Your task to perform on an android device: Open Youtube and go to "Your channel" Image 0: 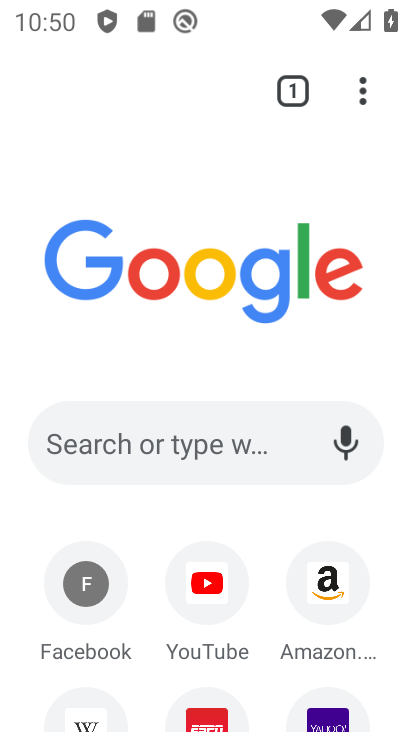
Step 0: press back button
Your task to perform on an android device: Open Youtube and go to "Your channel" Image 1: 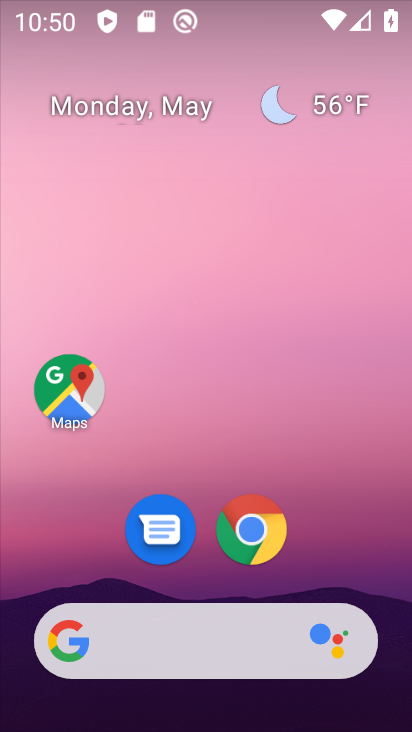
Step 1: drag from (331, 557) to (281, 71)
Your task to perform on an android device: Open Youtube and go to "Your channel" Image 2: 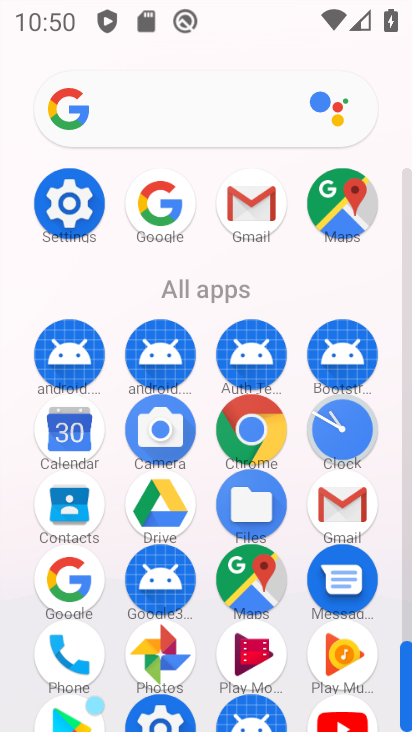
Step 2: drag from (296, 600) to (319, 245)
Your task to perform on an android device: Open Youtube and go to "Your channel" Image 3: 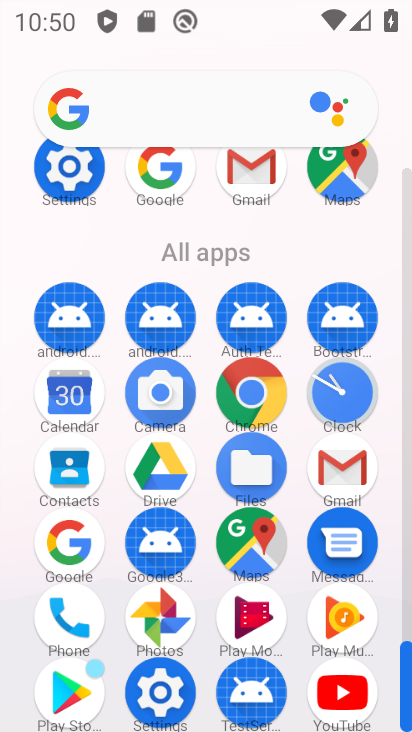
Step 3: click (343, 693)
Your task to perform on an android device: Open Youtube and go to "Your channel" Image 4: 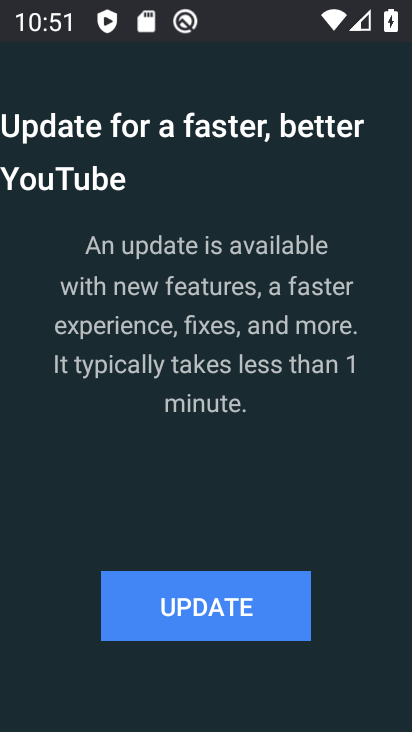
Step 4: click (199, 613)
Your task to perform on an android device: Open Youtube and go to "Your channel" Image 5: 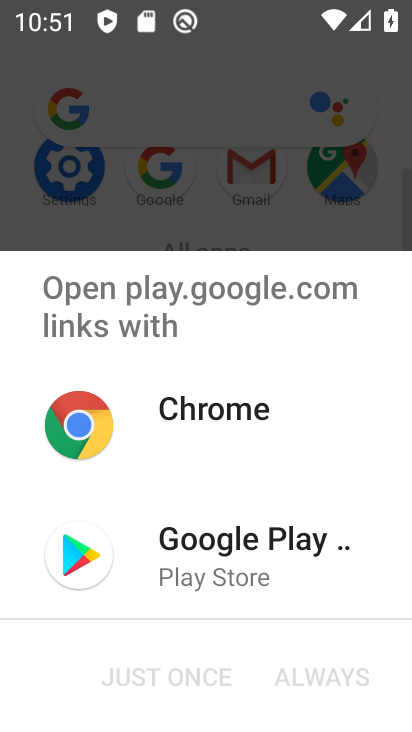
Step 5: click (207, 553)
Your task to perform on an android device: Open Youtube and go to "Your channel" Image 6: 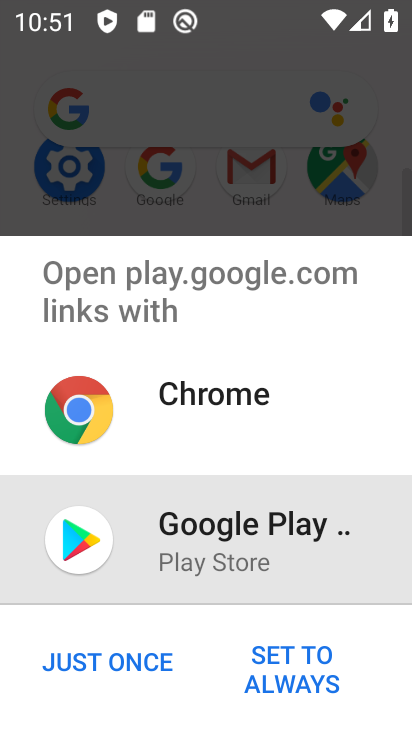
Step 6: click (127, 658)
Your task to perform on an android device: Open Youtube and go to "Your channel" Image 7: 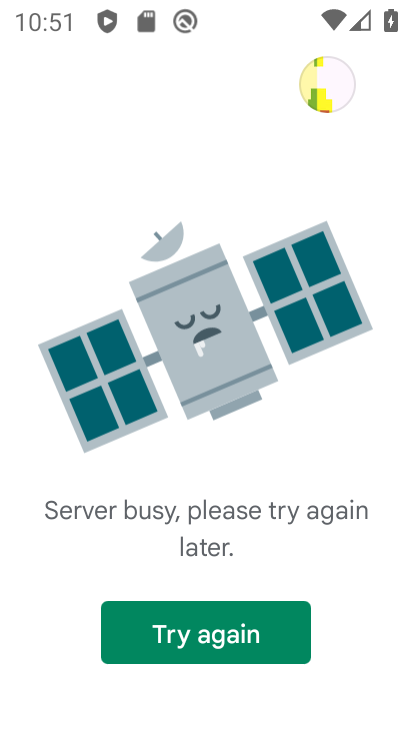
Step 7: click (201, 655)
Your task to perform on an android device: Open Youtube and go to "Your channel" Image 8: 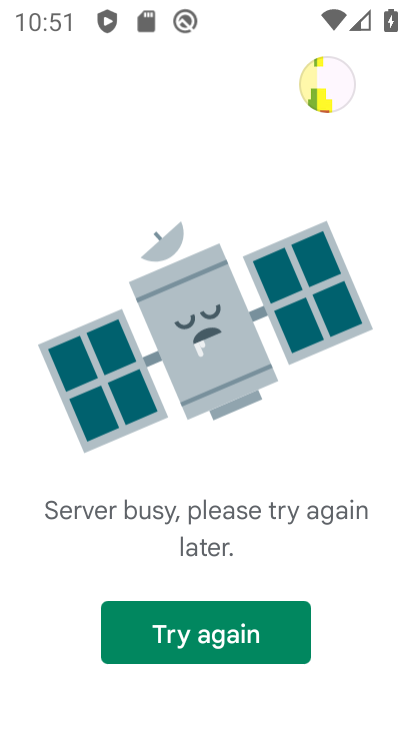
Step 8: click (202, 656)
Your task to perform on an android device: Open Youtube and go to "Your channel" Image 9: 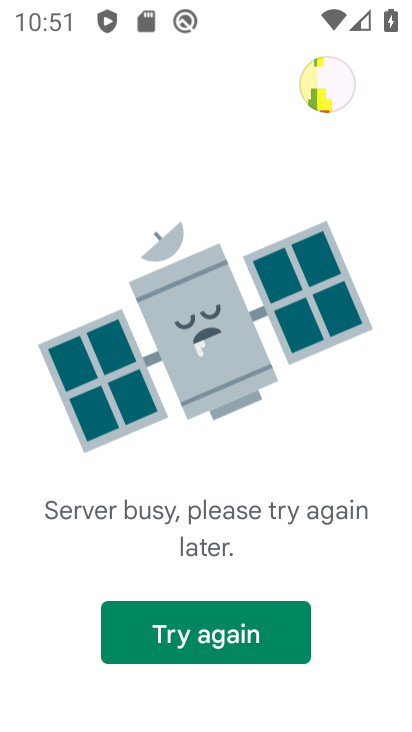
Step 9: press back button
Your task to perform on an android device: Open Youtube and go to "Your channel" Image 10: 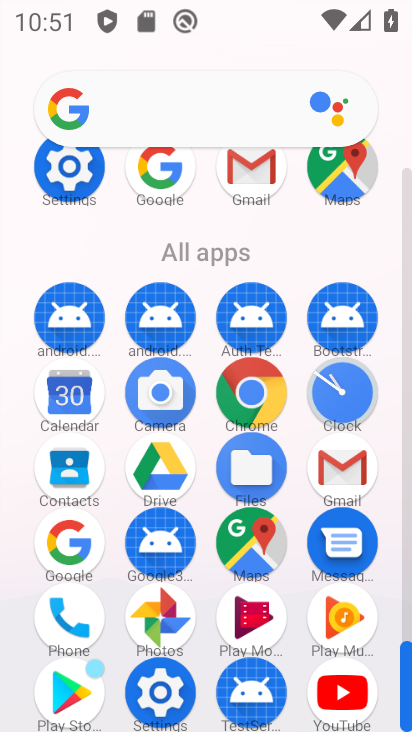
Step 10: click (344, 693)
Your task to perform on an android device: Open Youtube and go to "Your channel" Image 11: 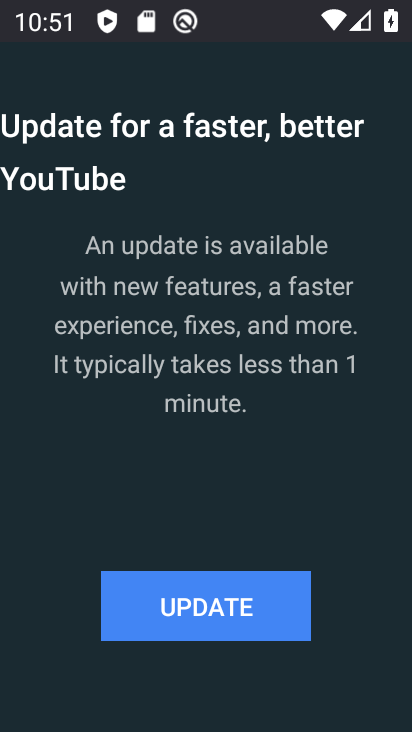
Step 11: click (240, 612)
Your task to perform on an android device: Open Youtube and go to "Your channel" Image 12: 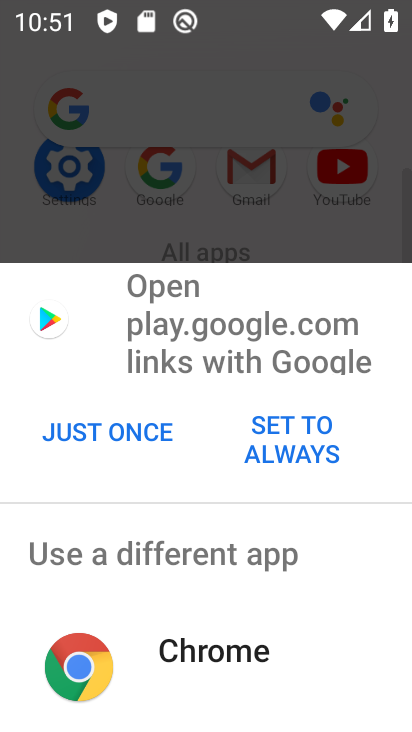
Step 12: click (154, 438)
Your task to perform on an android device: Open Youtube and go to "Your channel" Image 13: 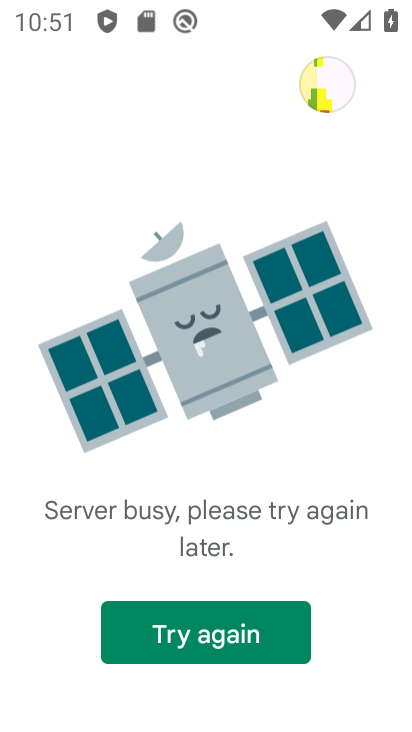
Step 13: click (208, 628)
Your task to perform on an android device: Open Youtube and go to "Your channel" Image 14: 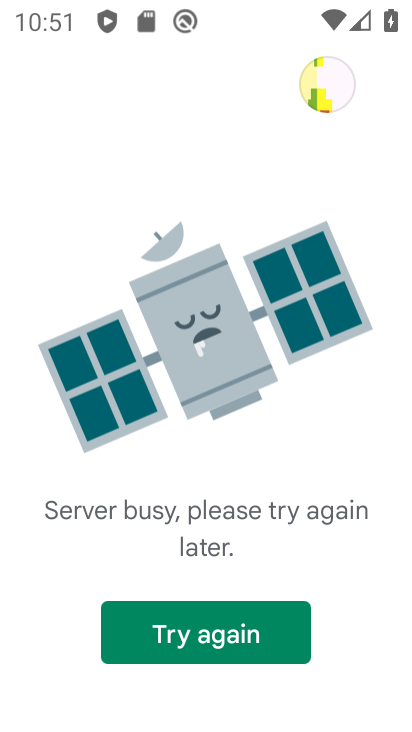
Step 14: task complete